Your task to perform on an android device: Open calendar and show me the fourth week of next month Image 0: 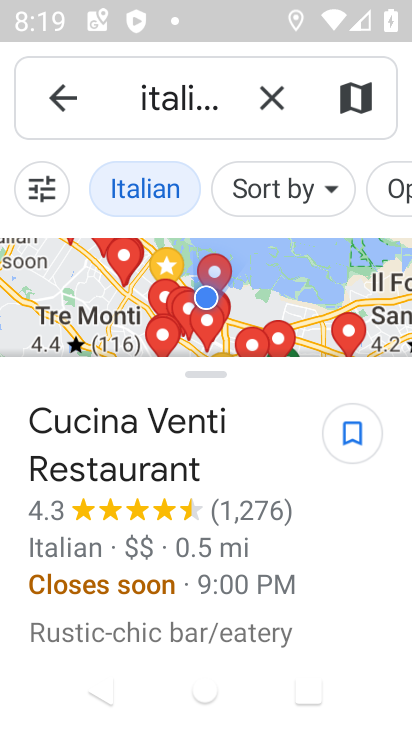
Step 0: press home button
Your task to perform on an android device: Open calendar and show me the fourth week of next month Image 1: 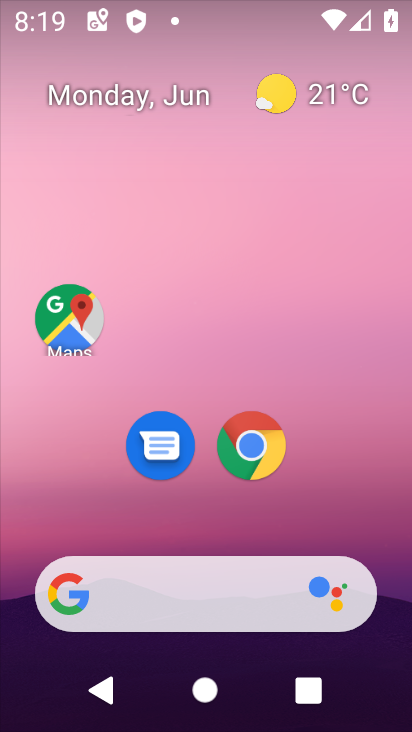
Step 1: drag from (224, 528) to (375, 297)
Your task to perform on an android device: Open calendar and show me the fourth week of next month Image 2: 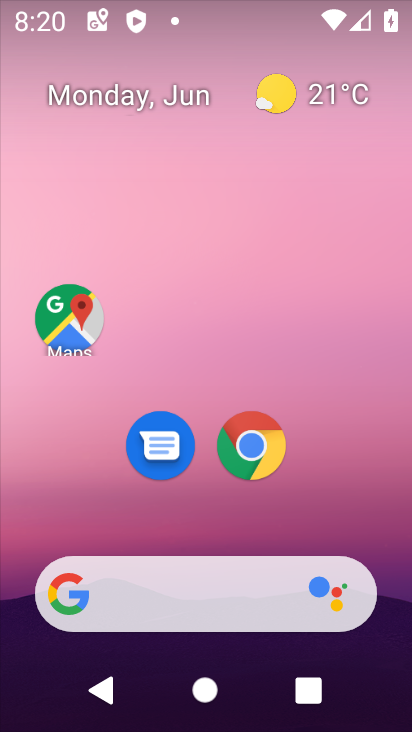
Step 2: drag from (332, 514) to (362, 1)
Your task to perform on an android device: Open calendar and show me the fourth week of next month Image 3: 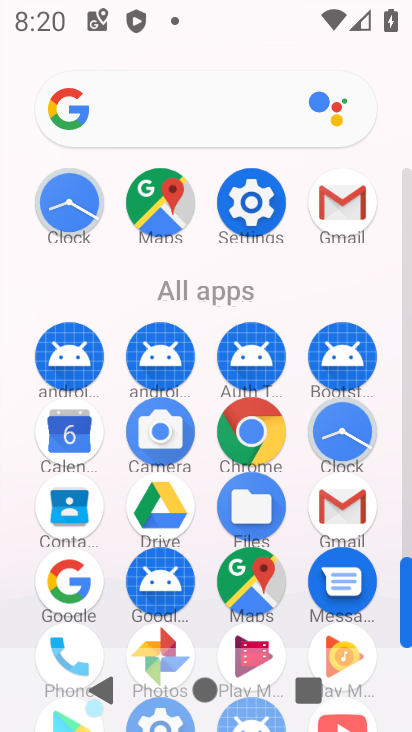
Step 3: click (44, 432)
Your task to perform on an android device: Open calendar and show me the fourth week of next month Image 4: 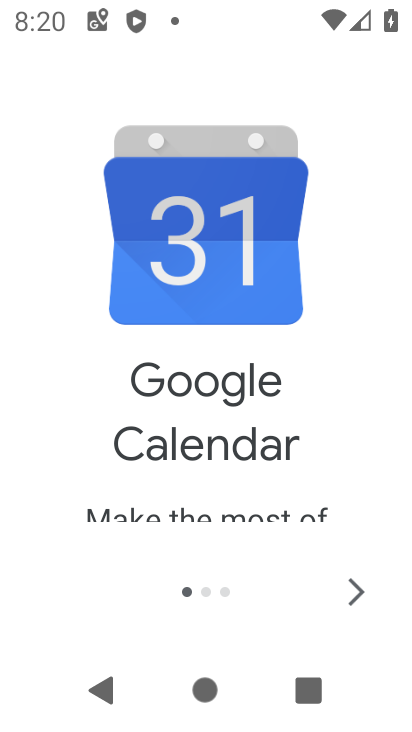
Step 4: click (362, 589)
Your task to perform on an android device: Open calendar and show me the fourth week of next month Image 5: 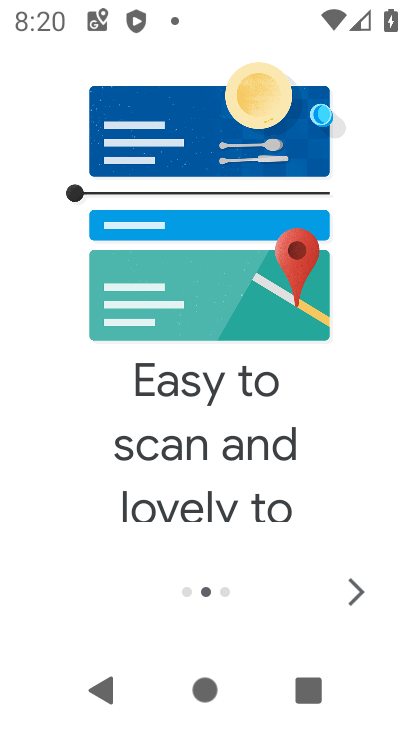
Step 5: click (362, 589)
Your task to perform on an android device: Open calendar and show me the fourth week of next month Image 6: 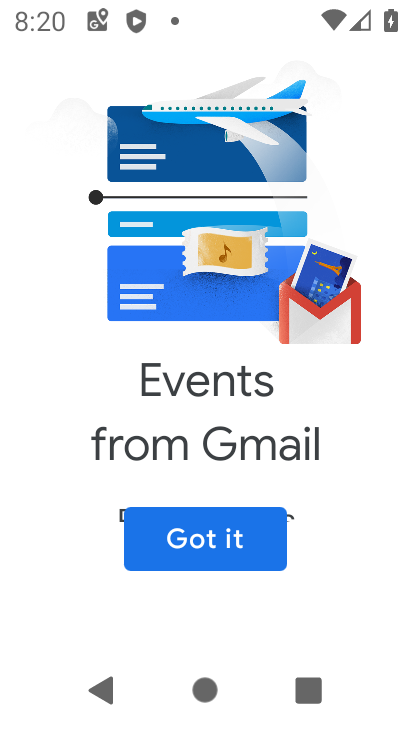
Step 6: click (167, 550)
Your task to perform on an android device: Open calendar and show me the fourth week of next month Image 7: 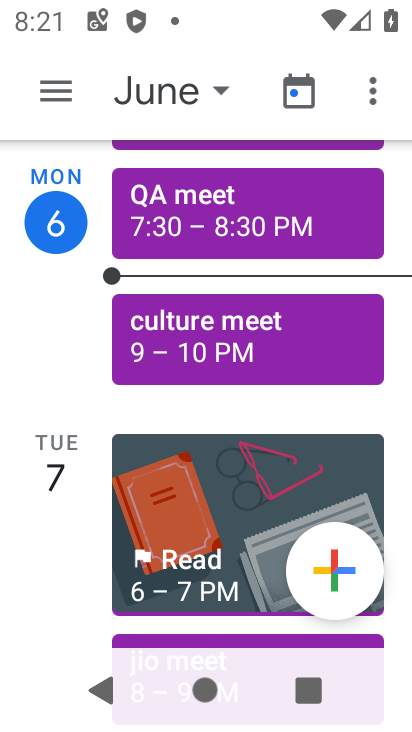
Step 7: click (139, 95)
Your task to perform on an android device: Open calendar and show me the fourth week of next month Image 8: 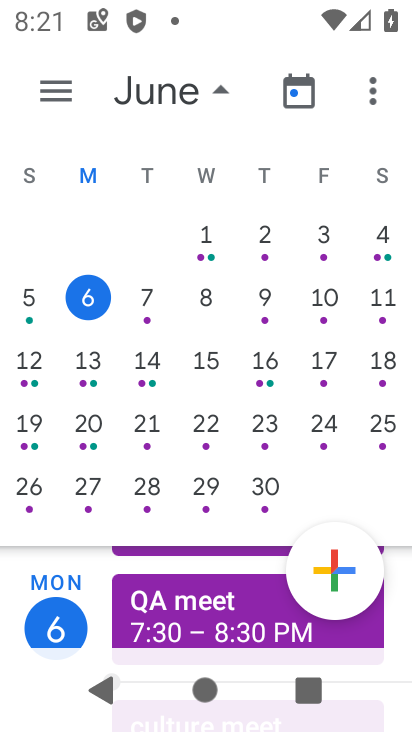
Step 8: drag from (356, 414) to (24, 412)
Your task to perform on an android device: Open calendar and show me the fourth week of next month Image 9: 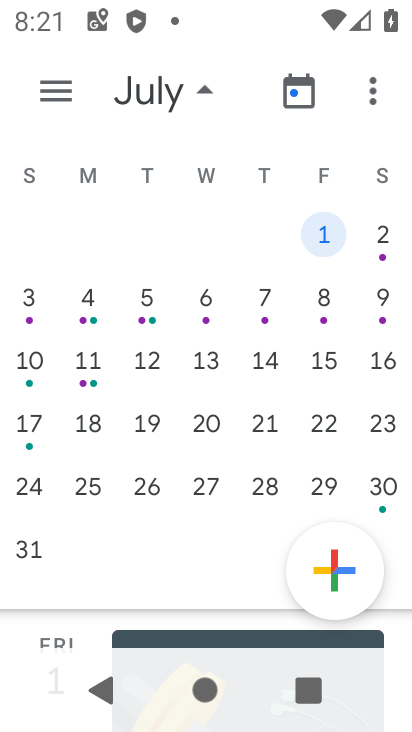
Step 9: click (26, 433)
Your task to perform on an android device: Open calendar and show me the fourth week of next month Image 10: 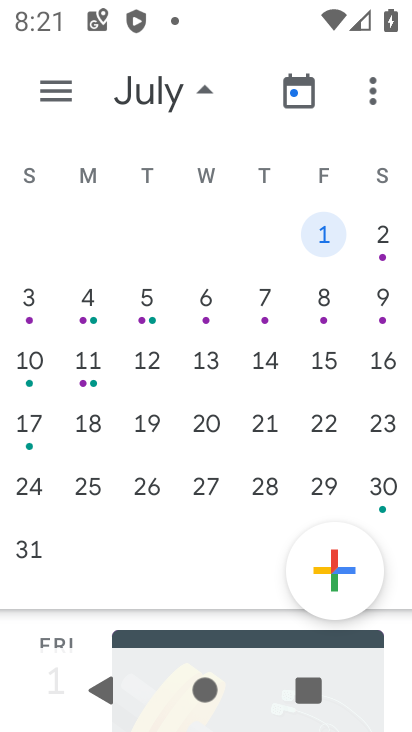
Step 10: click (28, 427)
Your task to perform on an android device: Open calendar and show me the fourth week of next month Image 11: 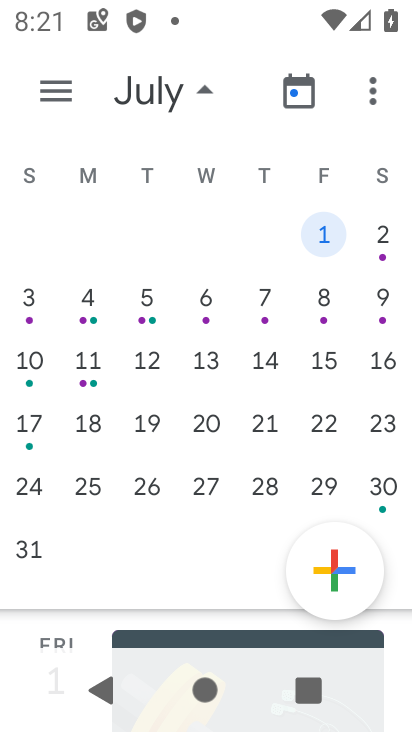
Step 11: click (38, 438)
Your task to perform on an android device: Open calendar and show me the fourth week of next month Image 12: 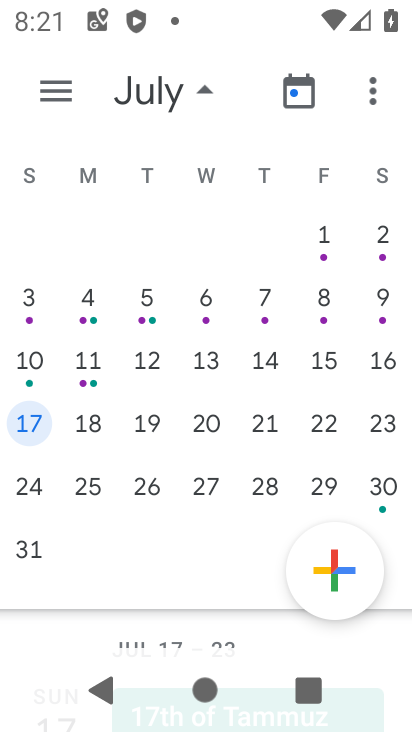
Step 12: task complete